Your task to perform on an android device: change the clock display to digital Image 0: 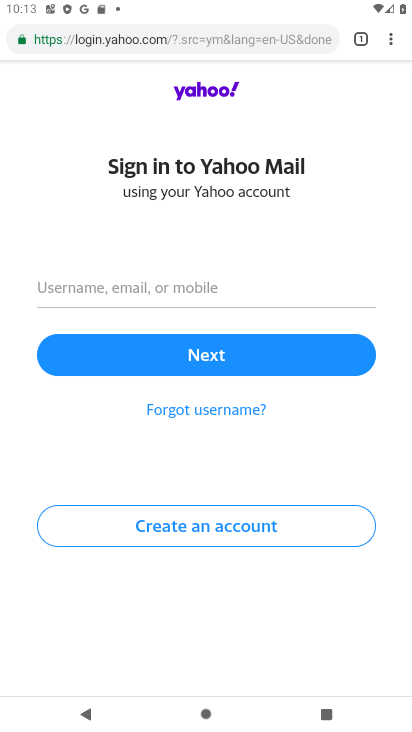
Step 0: press home button
Your task to perform on an android device: change the clock display to digital Image 1: 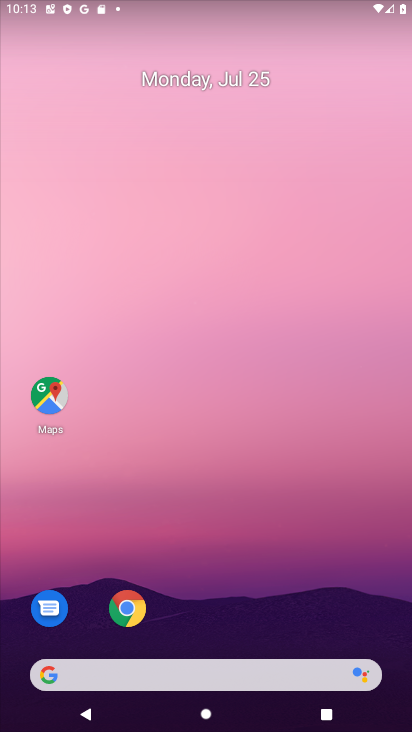
Step 1: drag from (176, 238) to (176, 139)
Your task to perform on an android device: change the clock display to digital Image 2: 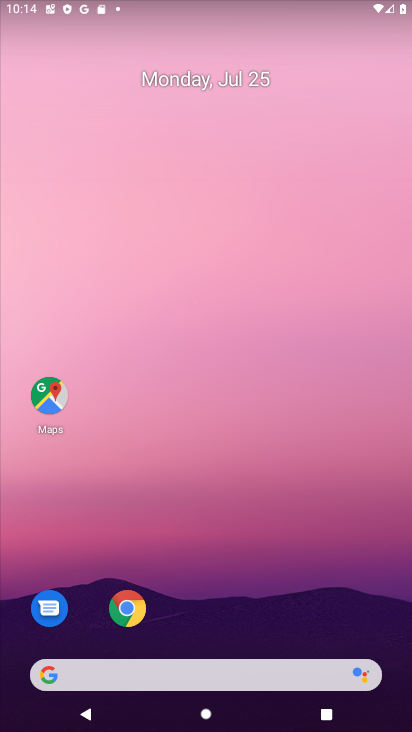
Step 2: drag from (175, 655) to (232, 105)
Your task to perform on an android device: change the clock display to digital Image 3: 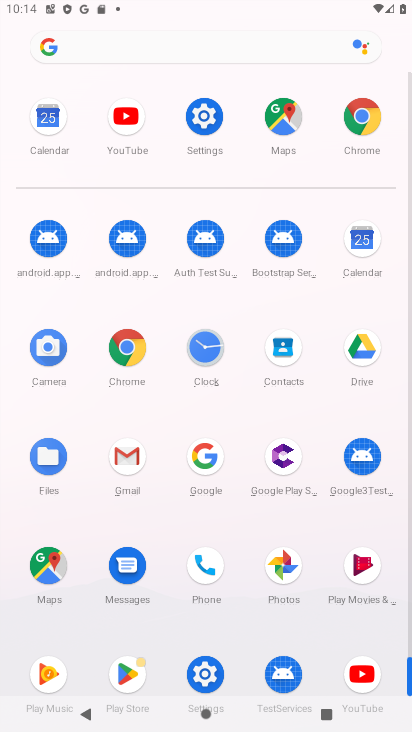
Step 3: click (201, 352)
Your task to perform on an android device: change the clock display to digital Image 4: 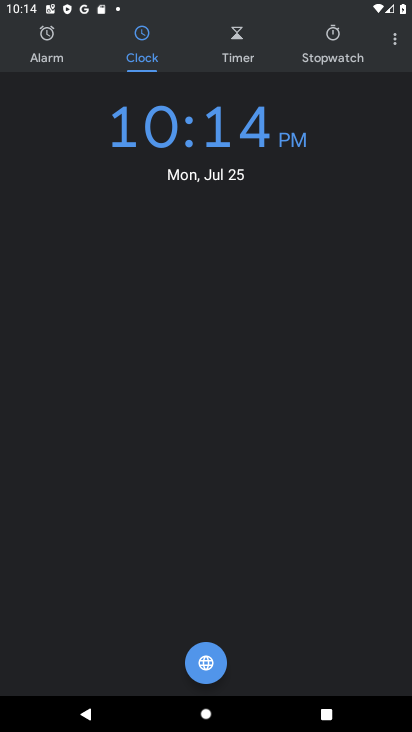
Step 4: click (397, 46)
Your task to perform on an android device: change the clock display to digital Image 5: 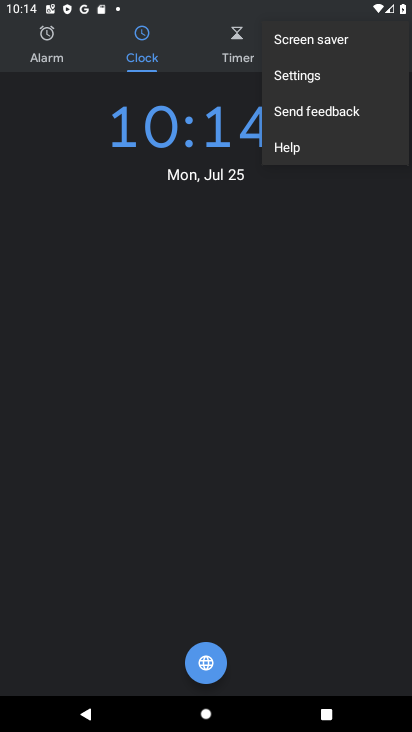
Step 5: click (314, 82)
Your task to perform on an android device: change the clock display to digital Image 6: 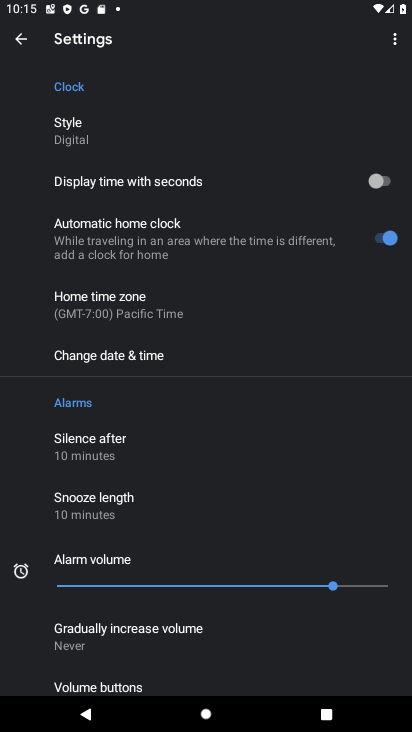
Step 6: task complete